Your task to perform on an android device: Add razer kraken to the cart on costco.com, then select checkout. Image 0: 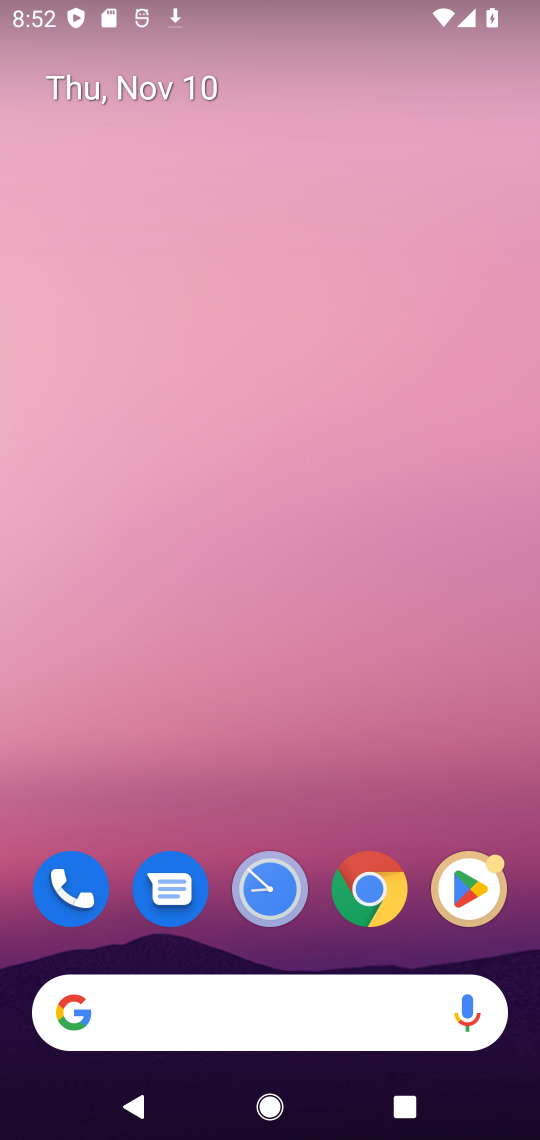
Step 0: press home button
Your task to perform on an android device: Add razer kraken to the cart on costco.com, then select checkout. Image 1: 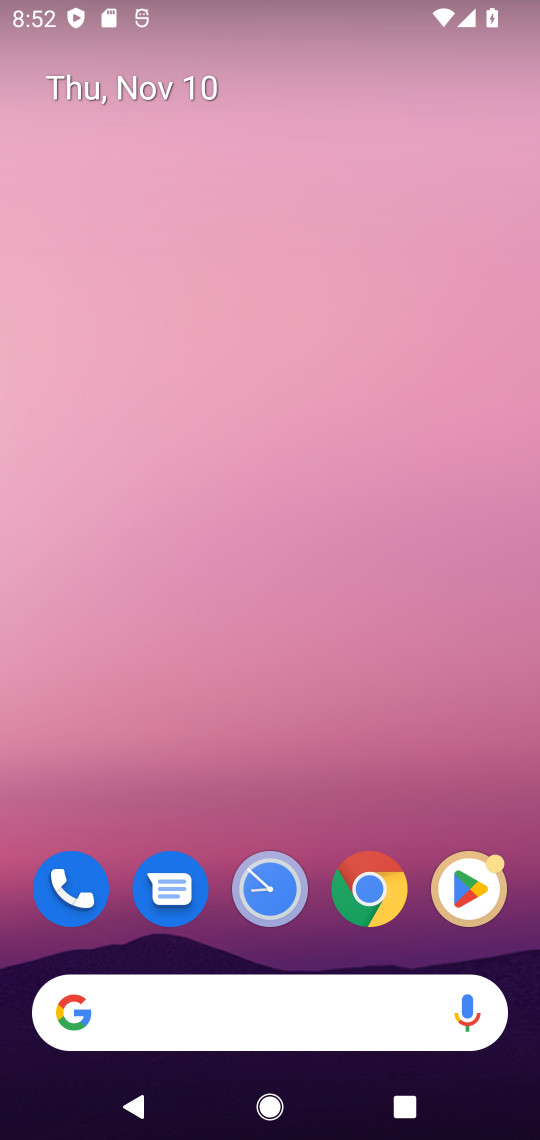
Step 1: click (372, 889)
Your task to perform on an android device: Add razer kraken to the cart on costco.com, then select checkout. Image 2: 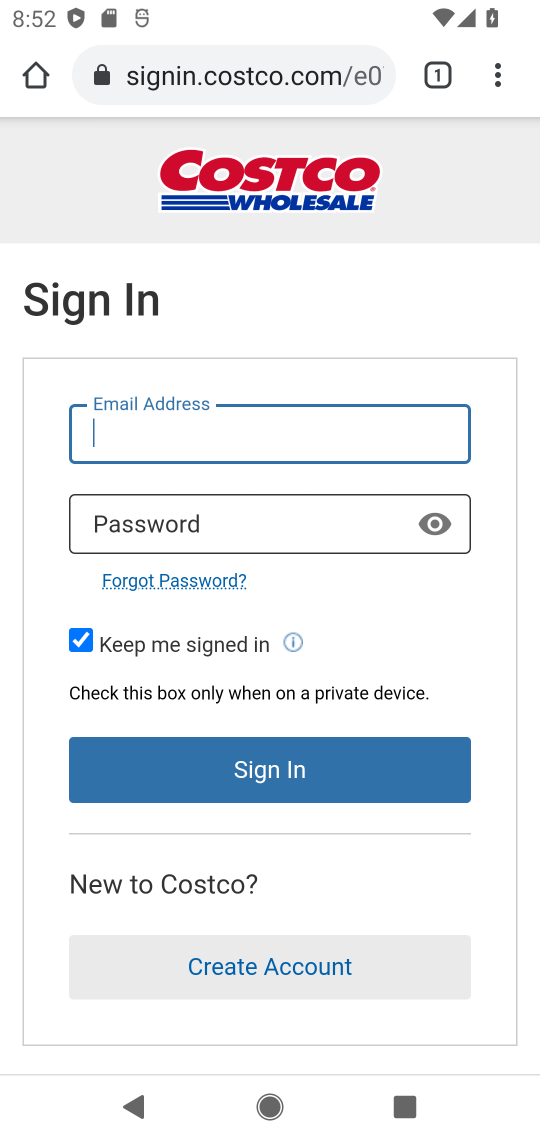
Step 2: press back button
Your task to perform on an android device: Add razer kraken to the cart on costco.com, then select checkout. Image 3: 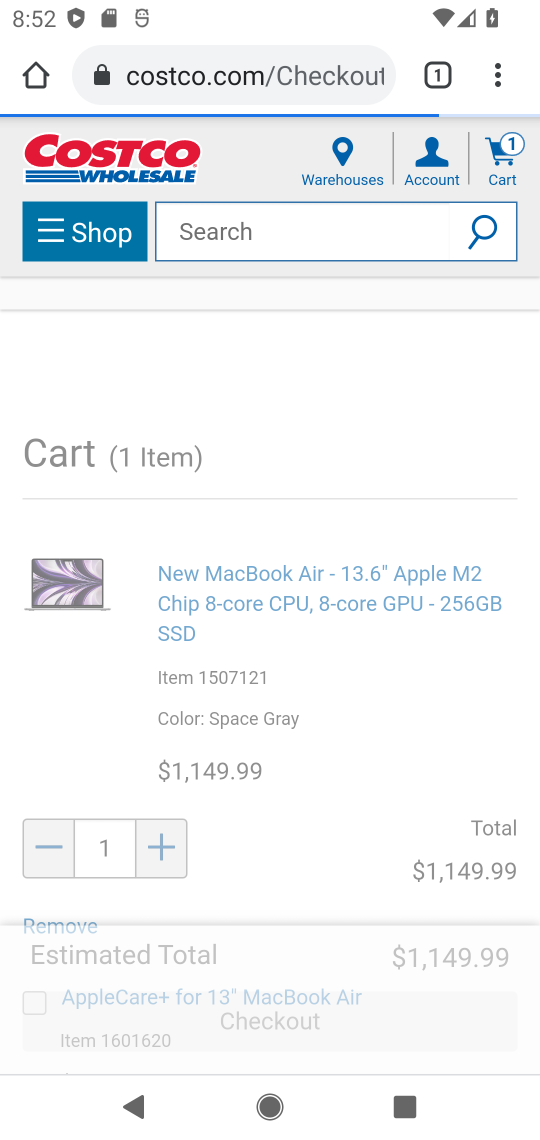
Step 3: click (269, 234)
Your task to perform on an android device: Add razer kraken to the cart on costco.com, then select checkout. Image 4: 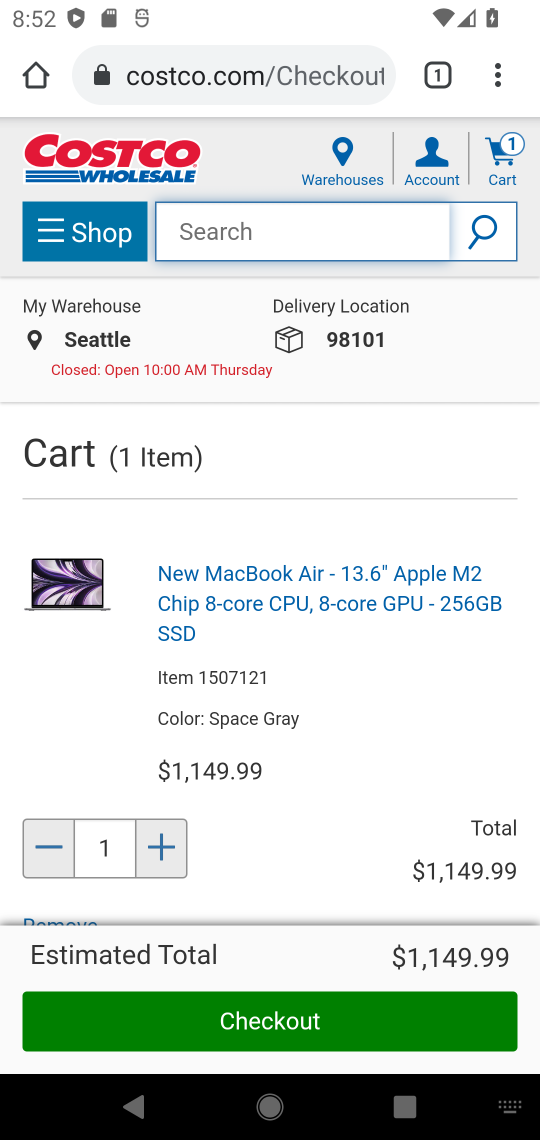
Step 4: type " razer kraken"
Your task to perform on an android device: Add razer kraken to the cart on costco.com, then select checkout. Image 5: 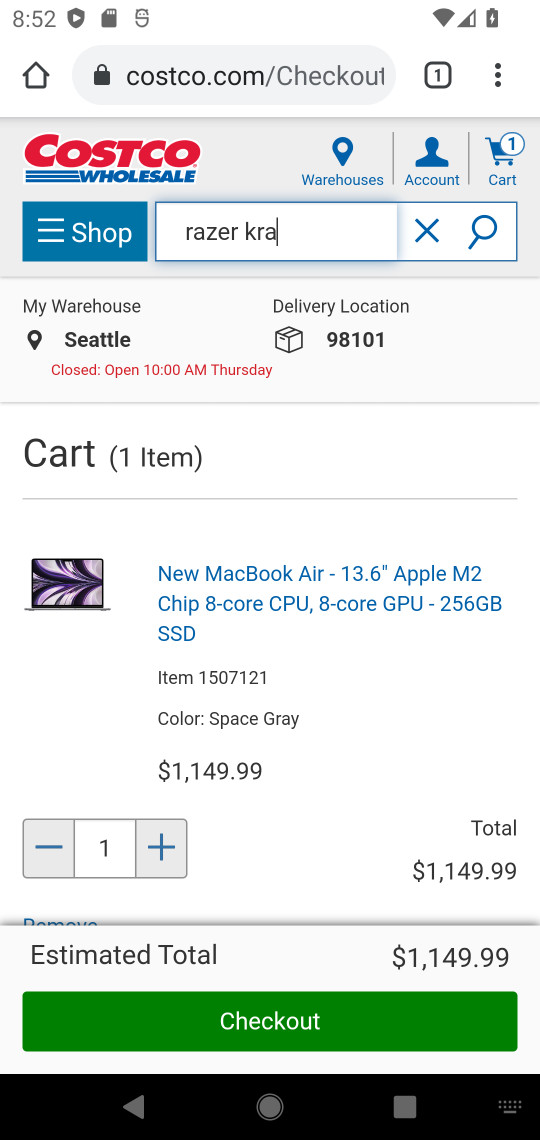
Step 5: press enter
Your task to perform on an android device: Add razer kraken to the cart on costco.com, then select checkout. Image 6: 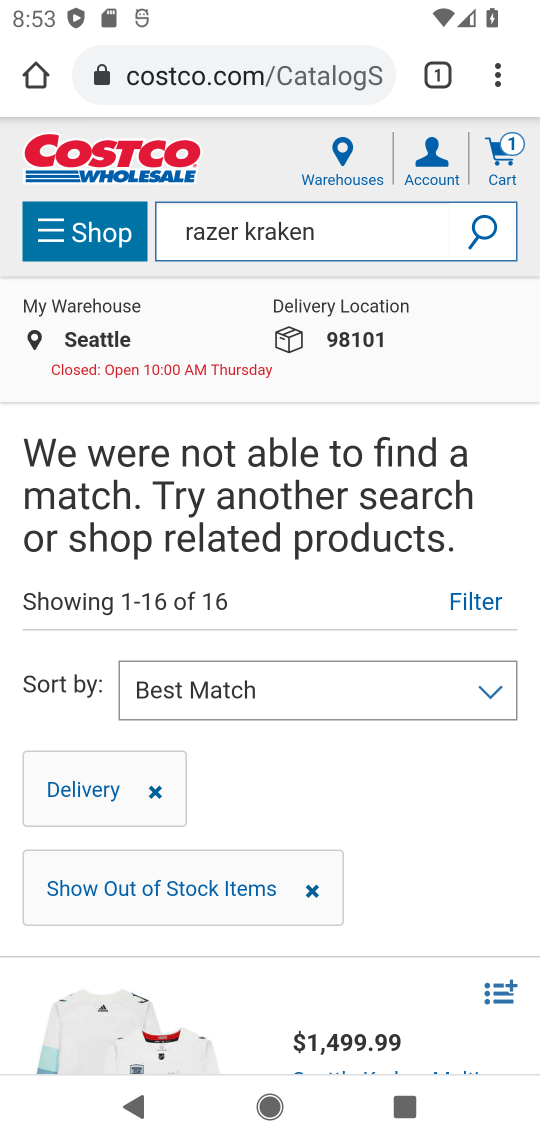
Step 6: task complete